Your task to perform on an android device: Do I have any events this weekend? Image 0: 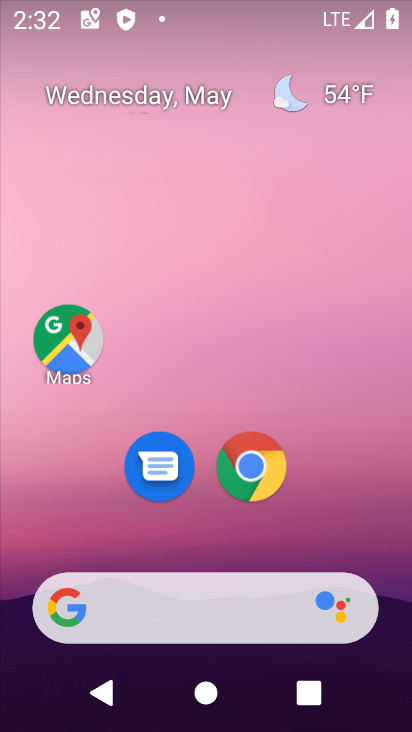
Step 0: drag from (394, 538) to (333, 228)
Your task to perform on an android device: Do I have any events this weekend? Image 1: 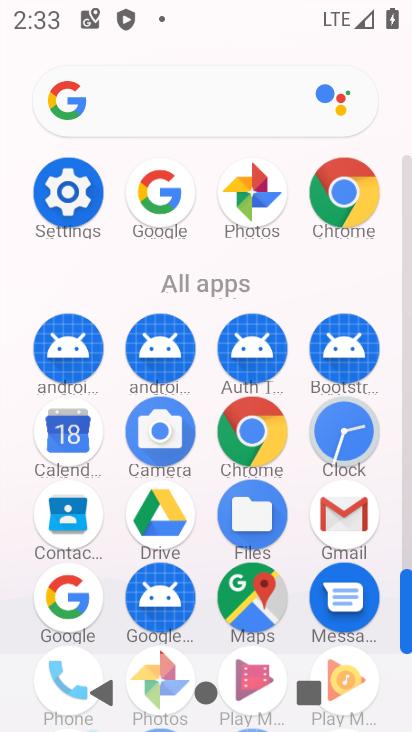
Step 1: click (76, 430)
Your task to perform on an android device: Do I have any events this weekend? Image 2: 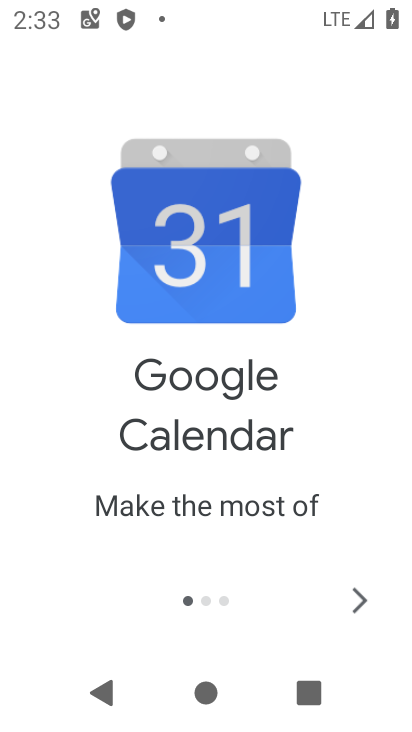
Step 2: click (366, 602)
Your task to perform on an android device: Do I have any events this weekend? Image 3: 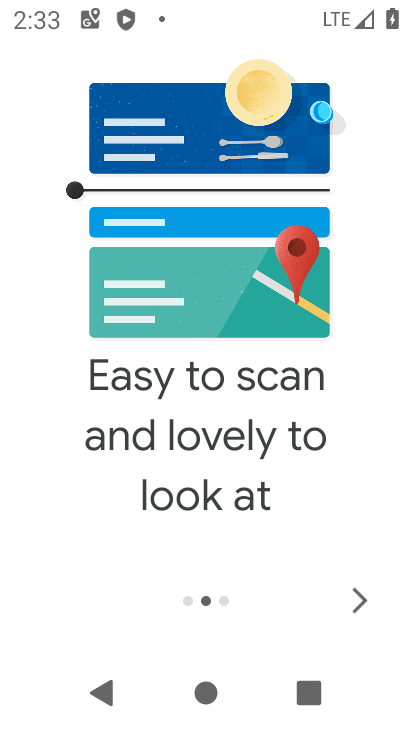
Step 3: click (366, 602)
Your task to perform on an android device: Do I have any events this weekend? Image 4: 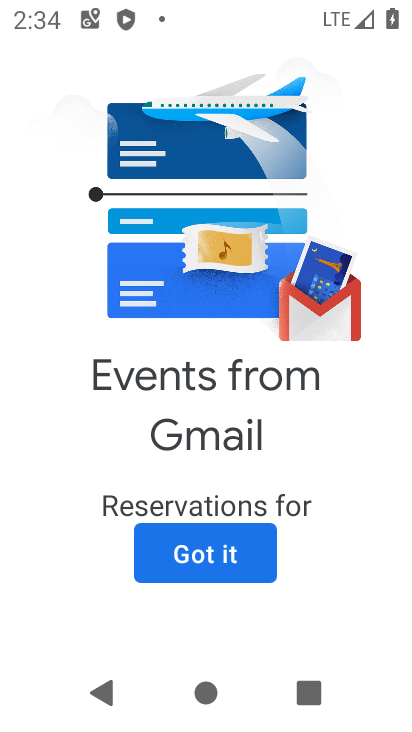
Step 4: click (214, 547)
Your task to perform on an android device: Do I have any events this weekend? Image 5: 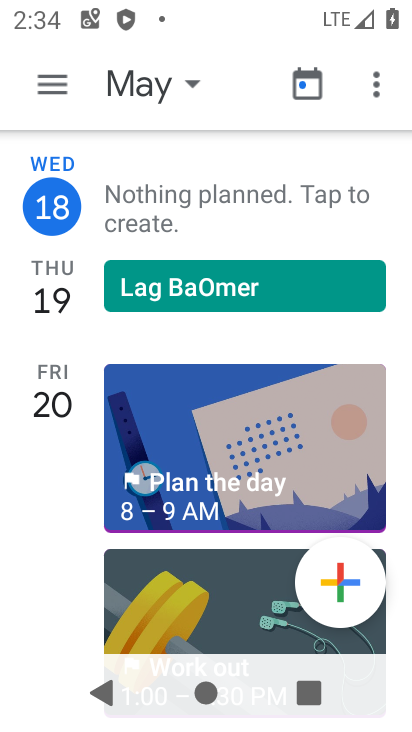
Step 5: click (41, 88)
Your task to perform on an android device: Do I have any events this weekend? Image 6: 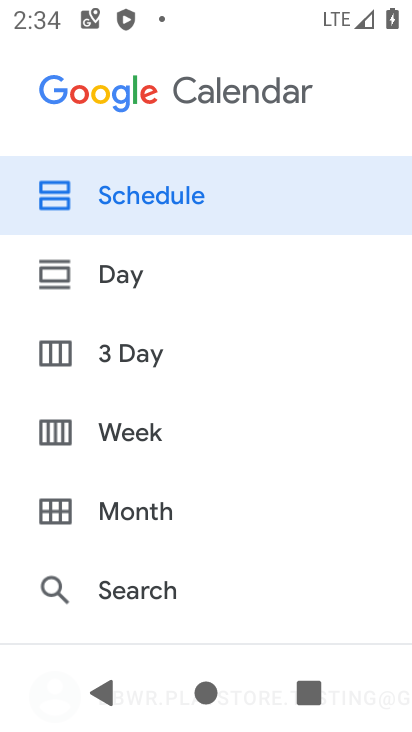
Step 6: drag from (189, 597) to (201, 83)
Your task to perform on an android device: Do I have any events this weekend? Image 7: 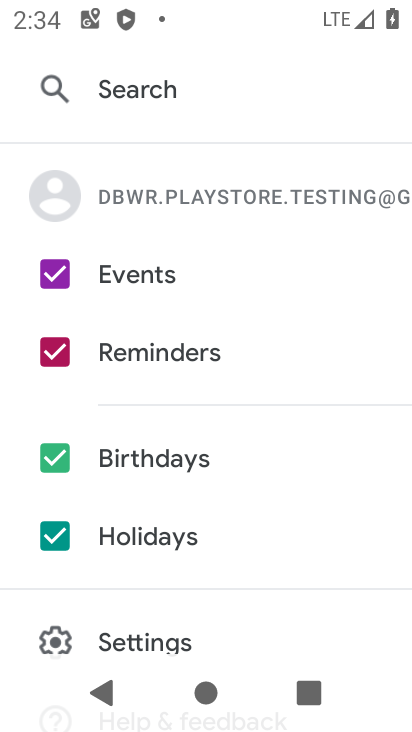
Step 7: click (39, 528)
Your task to perform on an android device: Do I have any events this weekend? Image 8: 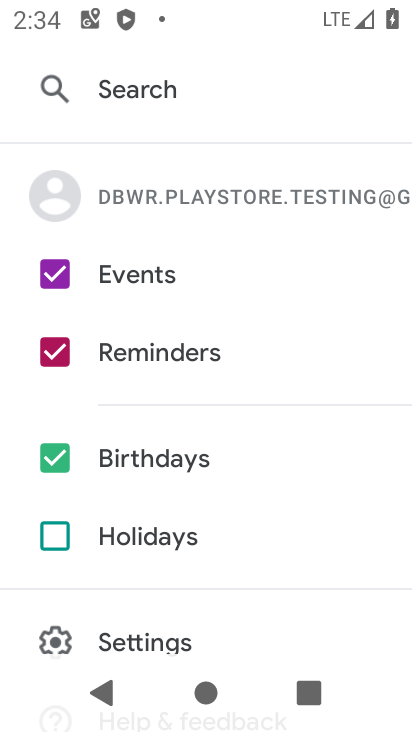
Step 8: click (59, 465)
Your task to perform on an android device: Do I have any events this weekend? Image 9: 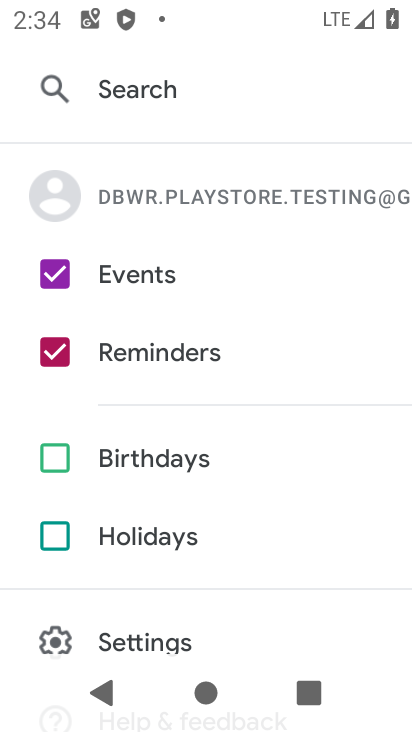
Step 9: click (50, 359)
Your task to perform on an android device: Do I have any events this weekend? Image 10: 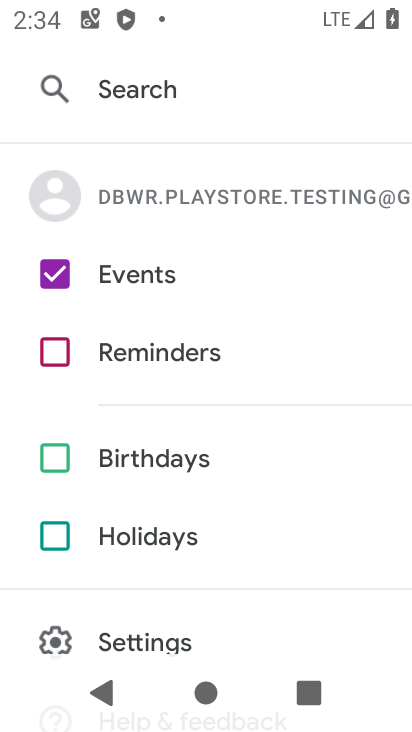
Step 10: drag from (202, 186) to (231, 608)
Your task to perform on an android device: Do I have any events this weekend? Image 11: 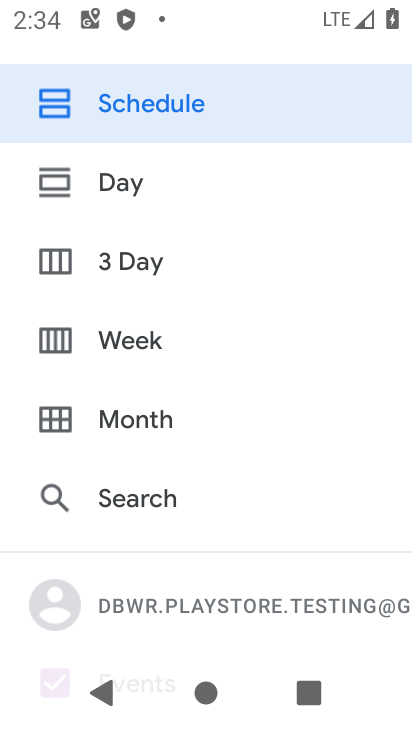
Step 11: click (136, 253)
Your task to perform on an android device: Do I have any events this weekend? Image 12: 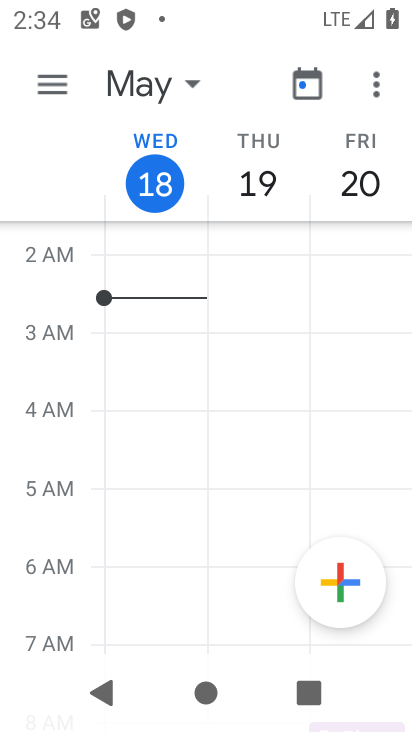
Step 12: task complete